Your task to perform on an android device: turn off wifi Image 0: 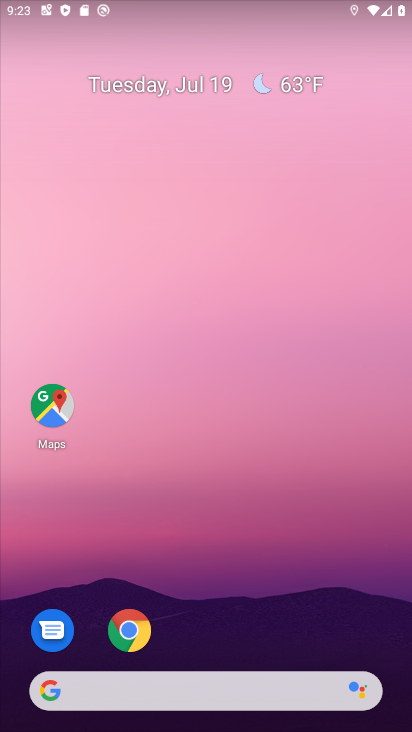
Step 0: drag from (196, 690) to (217, 113)
Your task to perform on an android device: turn off wifi Image 1: 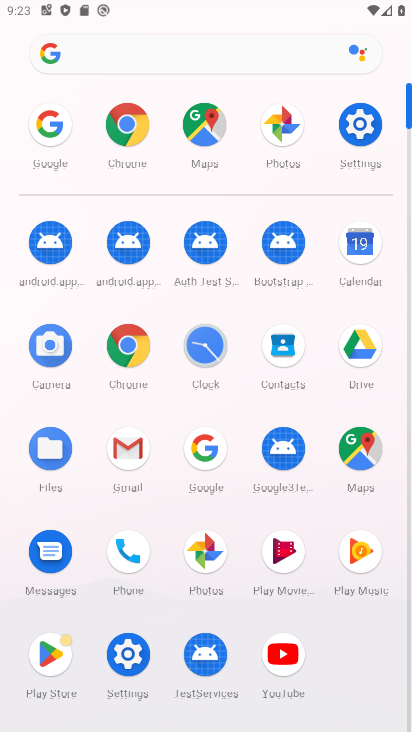
Step 1: click (361, 124)
Your task to perform on an android device: turn off wifi Image 2: 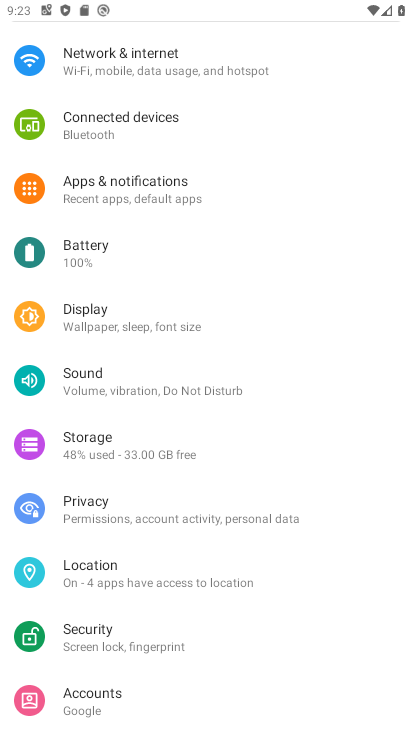
Step 2: click (153, 68)
Your task to perform on an android device: turn off wifi Image 3: 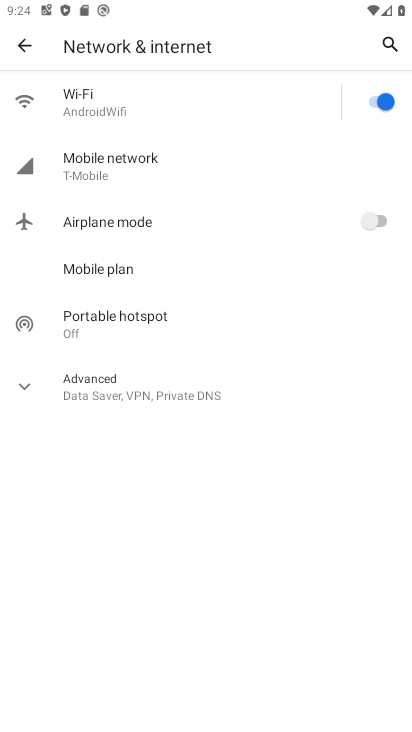
Step 3: click (371, 101)
Your task to perform on an android device: turn off wifi Image 4: 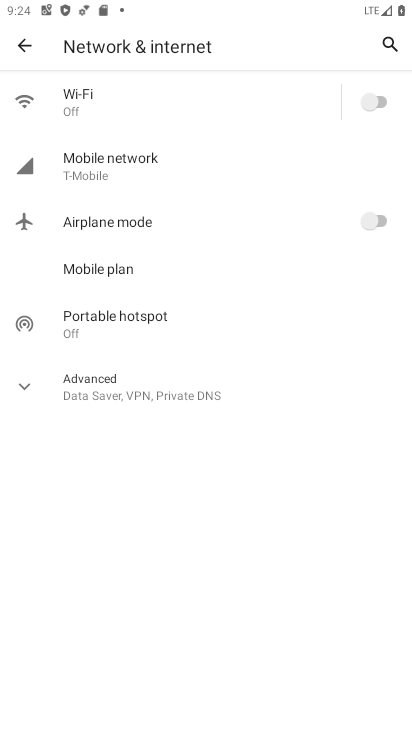
Step 4: task complete